Your task to perform on an android device: turn off notifications in google photos Image 0: 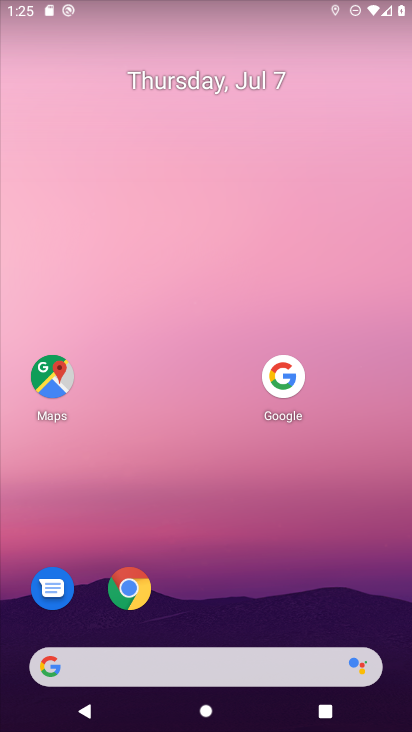
Step 0: drag from (220, 652) to (407, 195)
Your task to perform on an android device: turn off notifications in google photos Image 1: 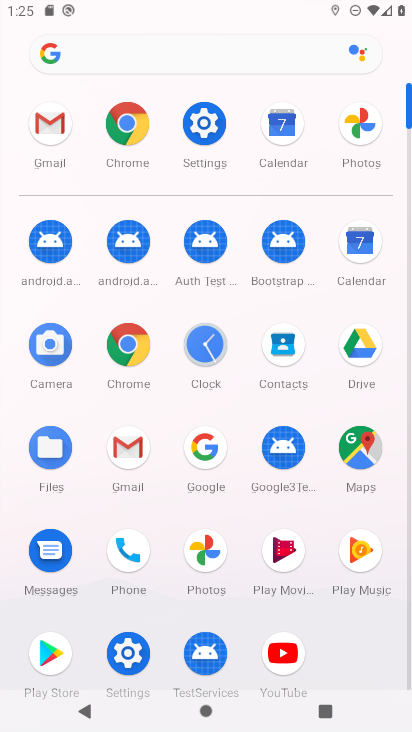
Step 1: click (200, 552)
Your task to perform on an android device: turn off notifications in google photos Image 2: 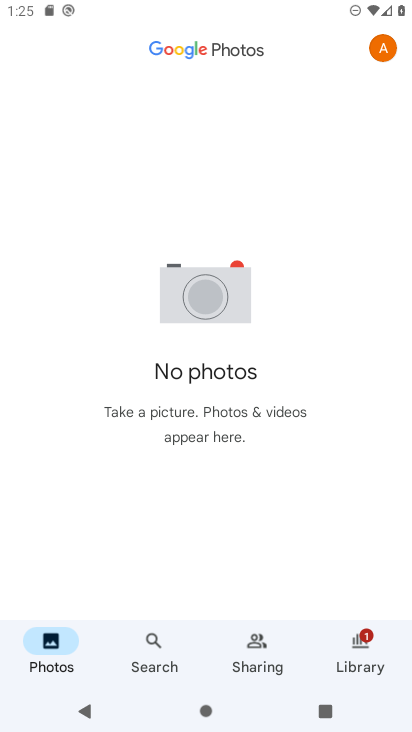
Step 2: click (385, 44)
Your task to perform on an android device: turn off notifications in google photos Image 3: 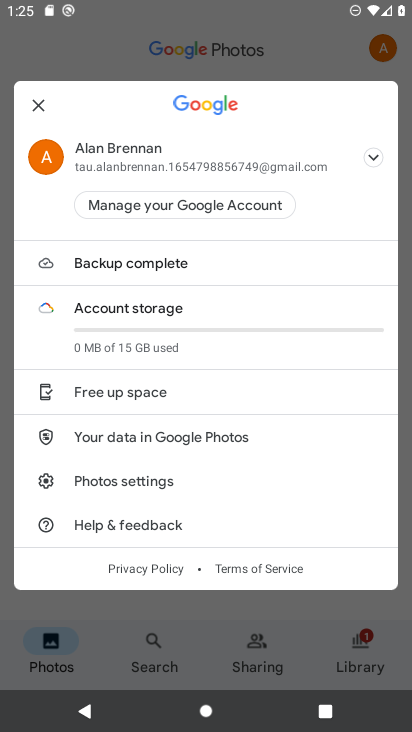
Step 3: click (129, 473)
Your task to perform on an android device: turn off notifications in google photos Image 4: 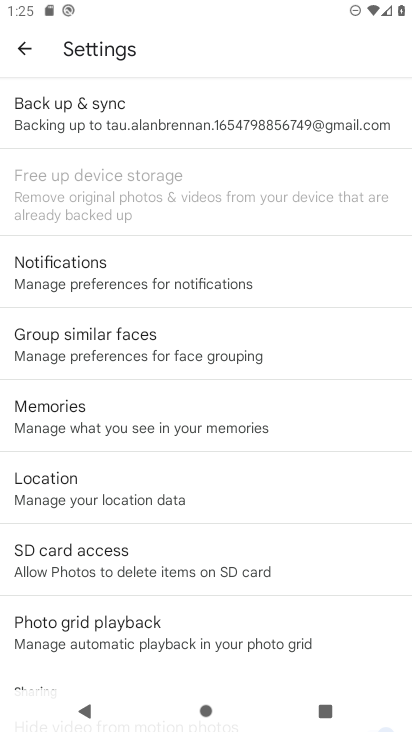
Step 4: click (197, 292)
Your task to perform on an android device: turn off notifications in google photos Image 5: 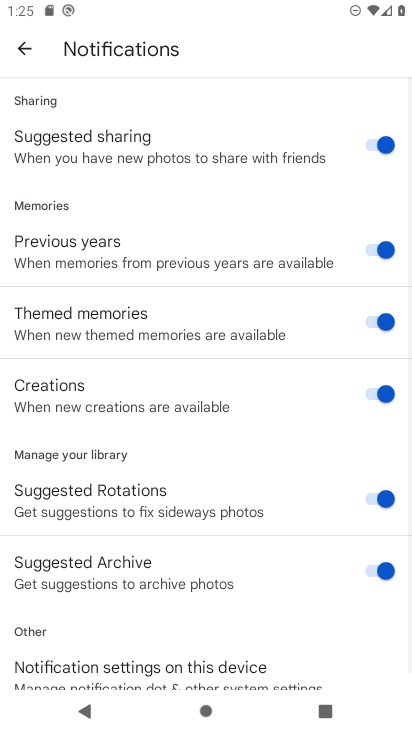
Step 5: click (208, 668)
Your task to perform on an android device: turn off notifications in google photos Image 6: 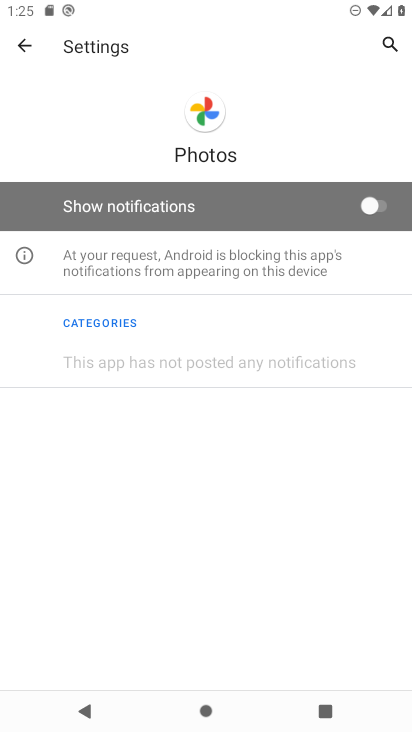
Step 6: task complete